Your task to perform on an android device: Search for Mexican restaurants on Maps Image 0: 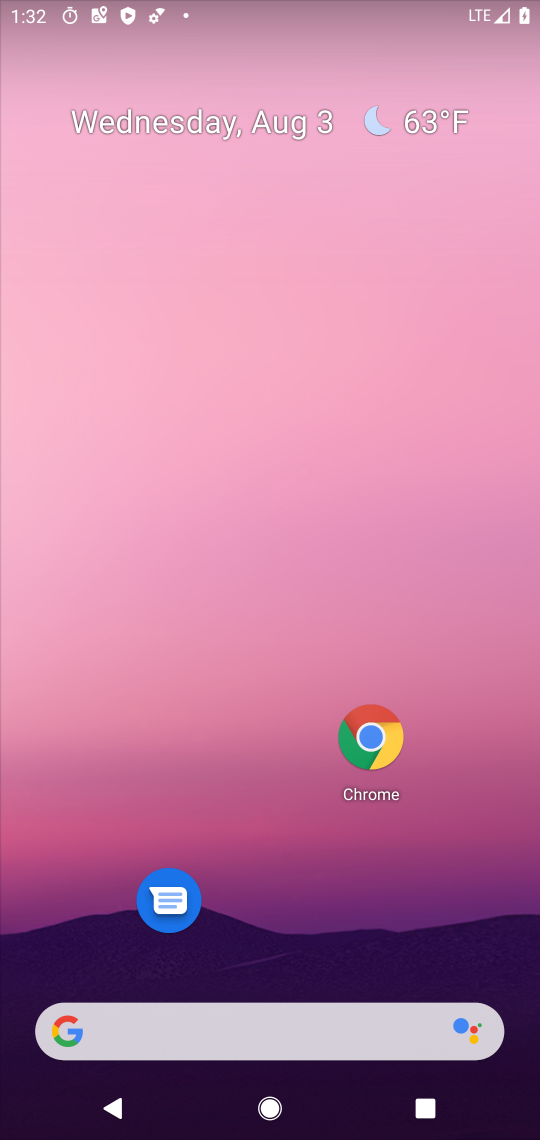
Step 0: drag from (315, 916) to (301, 22)
Your task to perform on an android device: Search for Mexican restaurants on Maps Image 1: 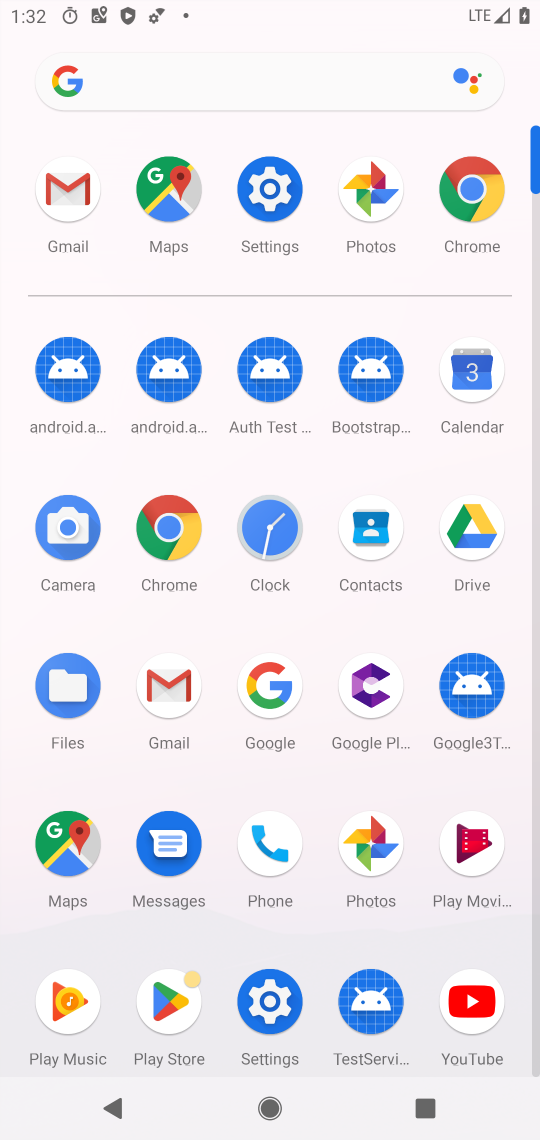
Step 1: click (76, 850)
Your task to perform on an android device: Search for Mexican restaurants on Maps Image 2: 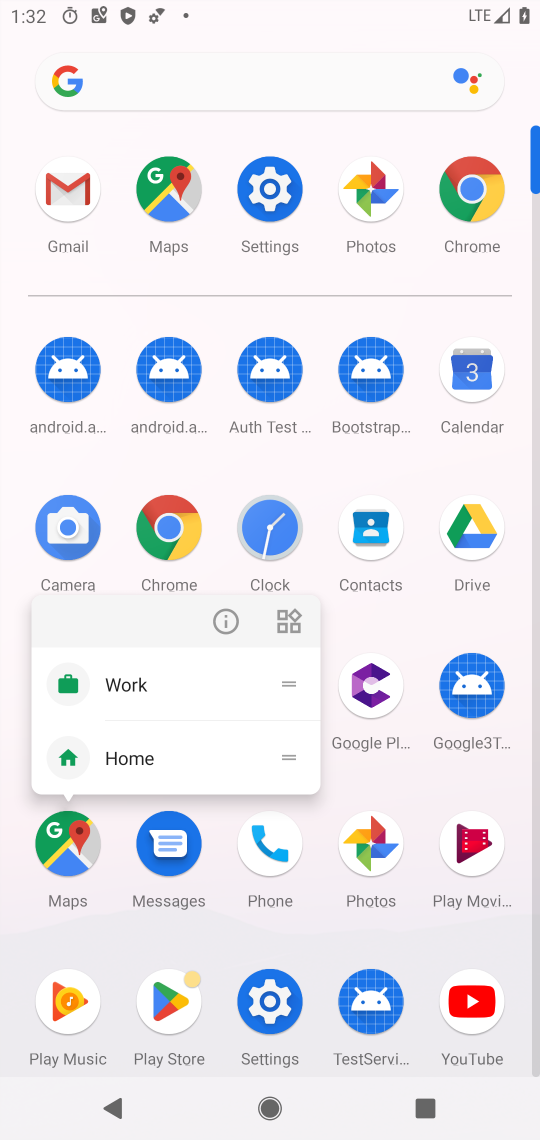
Step 2: click (57, 842)
Your task to perform on an android device: Search for Mexican restaurants on Maps Image 3: 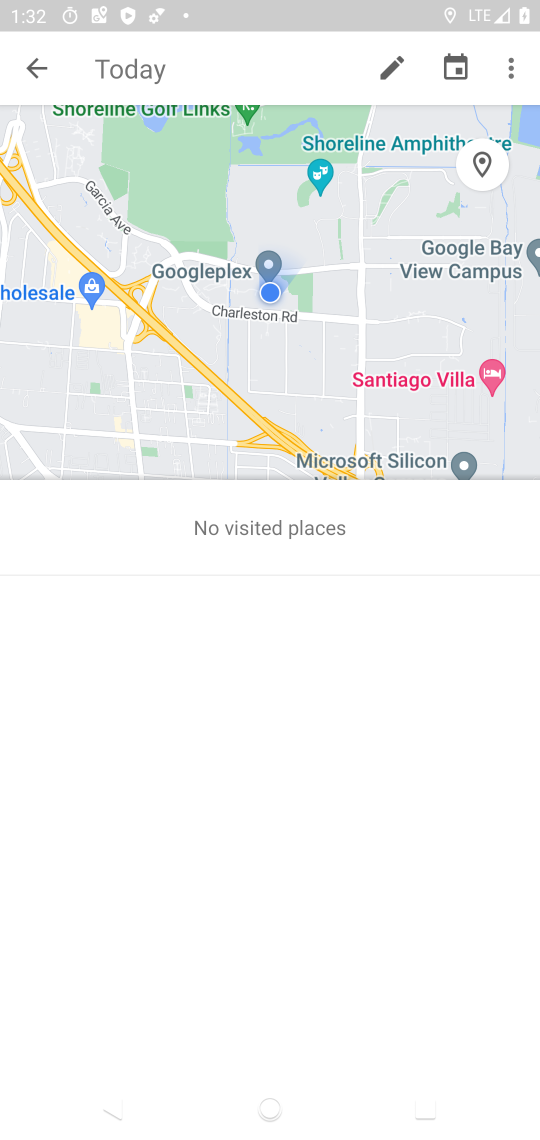
Step 3: click (41, 61)
Your task to perform on an android device: Search for Mexican restaurants on Maps Image 4: 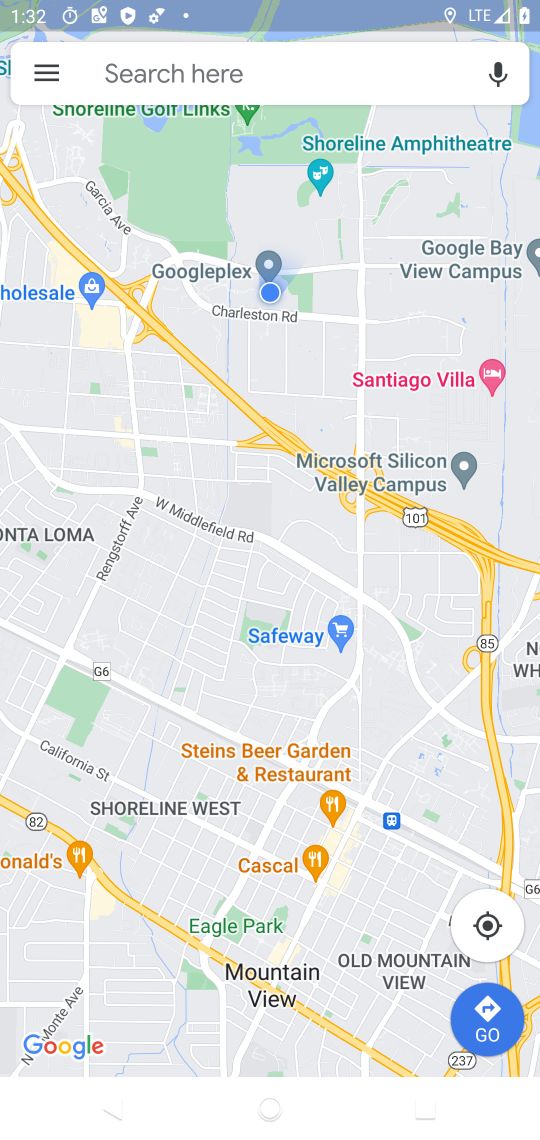
Step 4: click (292, 59)
Your task to perform on an android device: Search for Mexican restaurants on Maps Image 5: 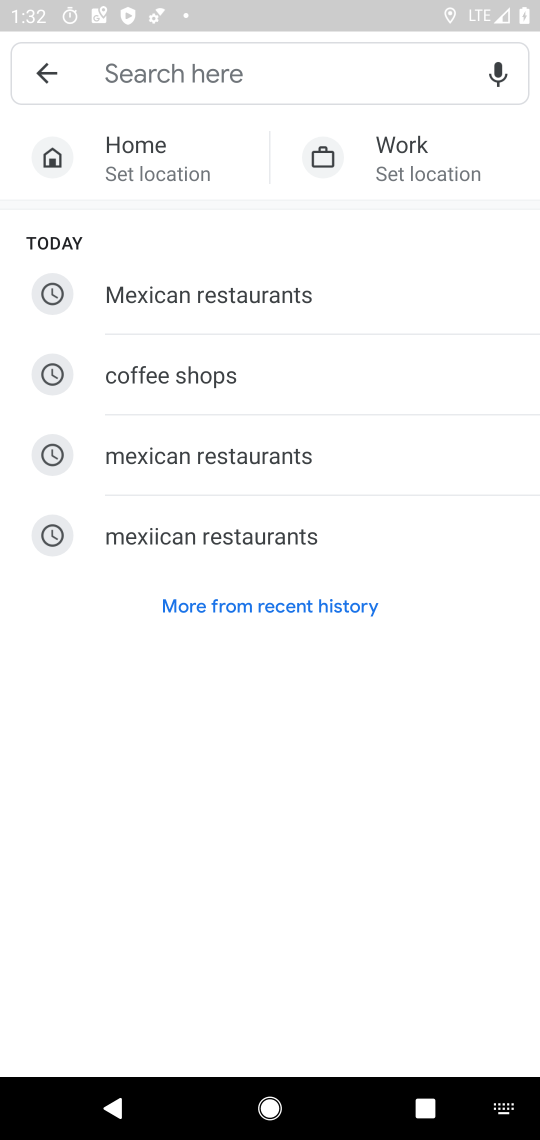
Step 5: click (240, 302)
Your task to perform on an android device: Search for Mexican restaurants on Maps Image 6: 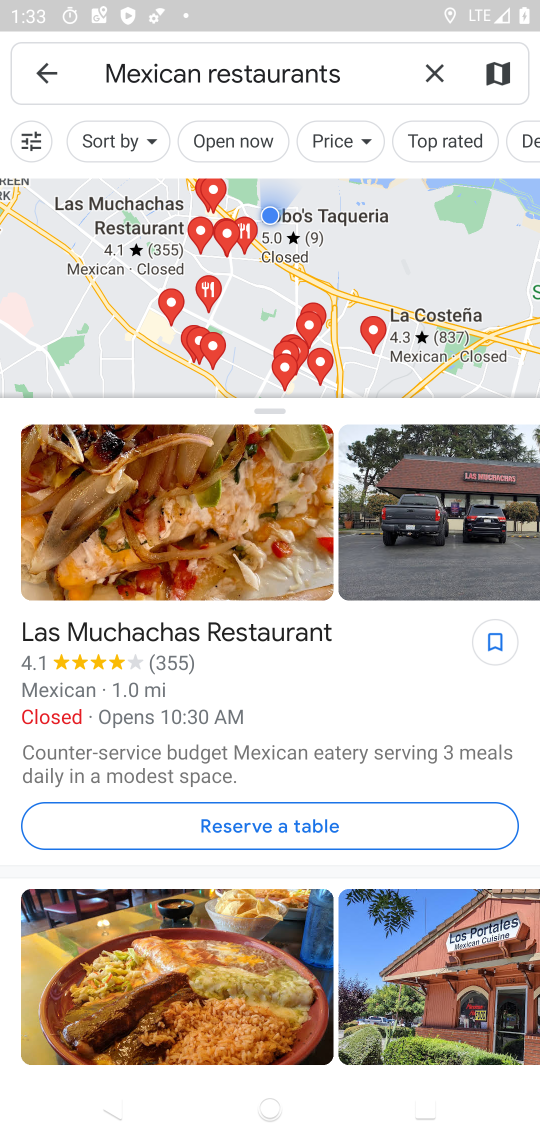
Step 6: task complete